Your task to perform on an android device: check battery use Image 0: 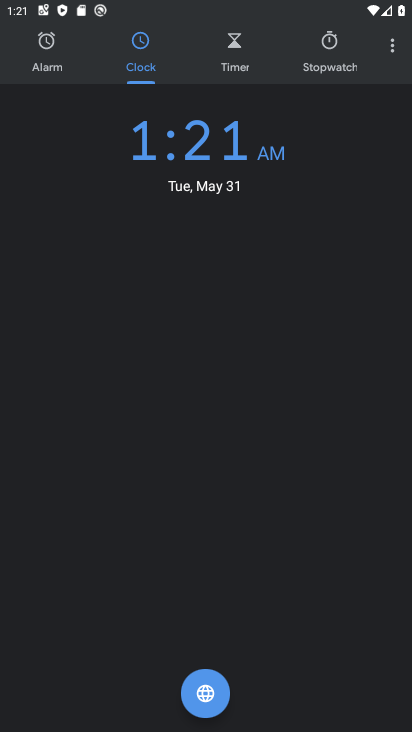
Step 0: press home button
Your task to perform on an android device: check battery use Image 1: 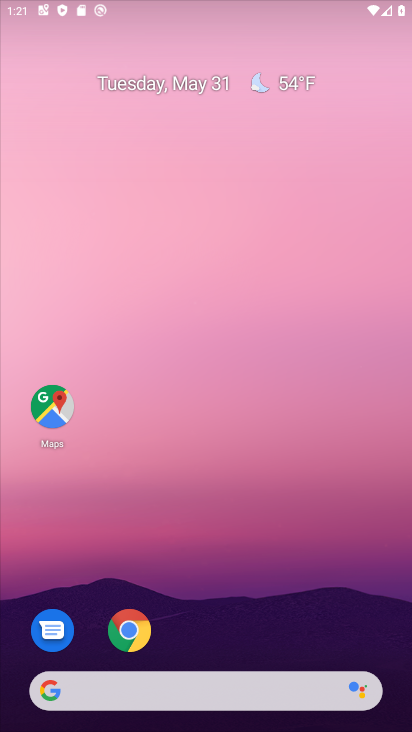
Step 1: drag from (249, 445) to (262, 118)
Your task to perform on an android device: check battery use Image 2: 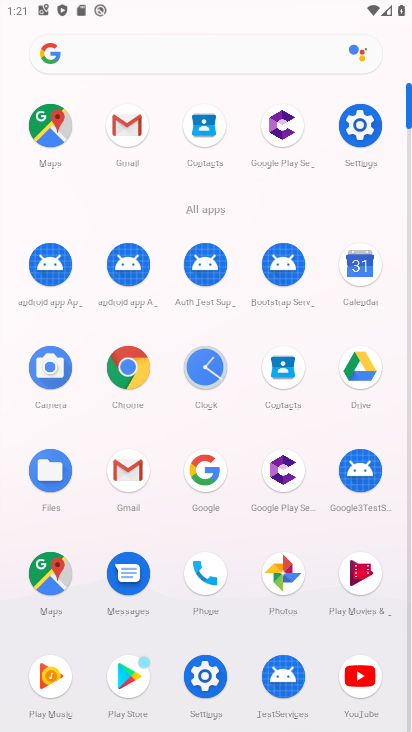
Step 2: click (362, 122)
Your task to perform on an android device: check battery use Image 3: 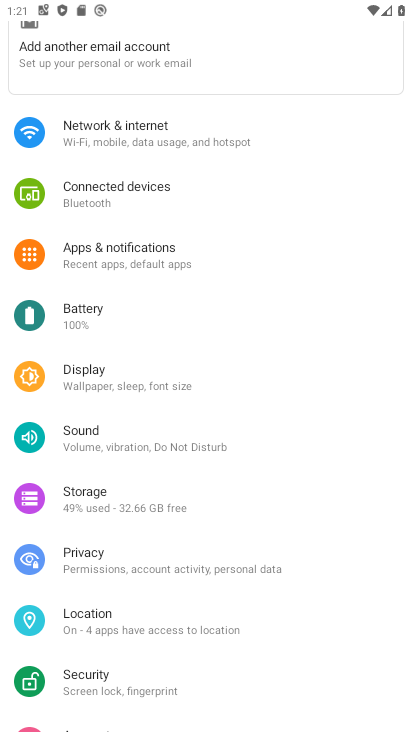
Step 3: click (103, 315)
Your task to perform on an android device: check battery use Image 4: 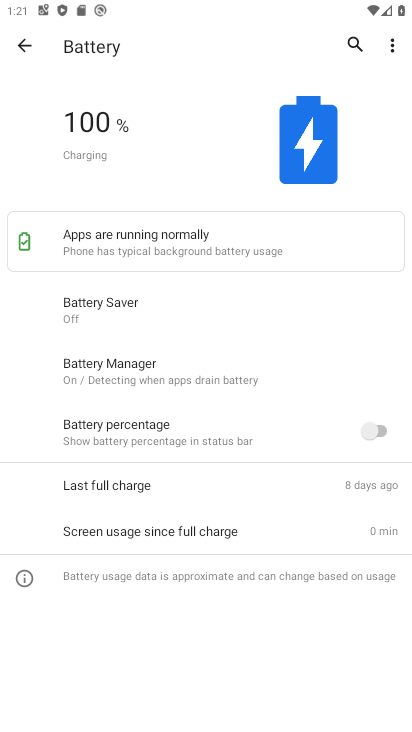
Step 4: click (383, 48)
Your task to perform on an android device: check battery use Image 5: 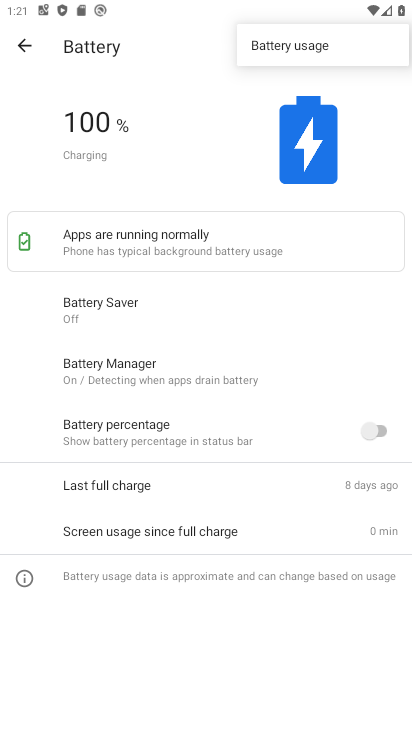
Step 5: click (272, 37)
Your task to perform on an android device: check battery use Image 6: 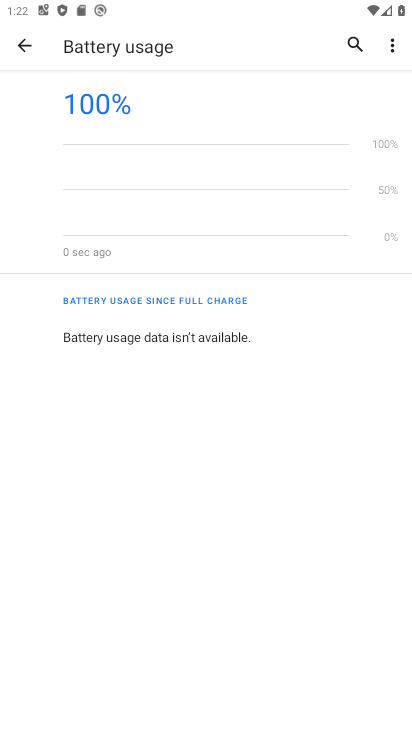
Step 6: task complete